Your task to perform on an android device: change timer sound Image 0: 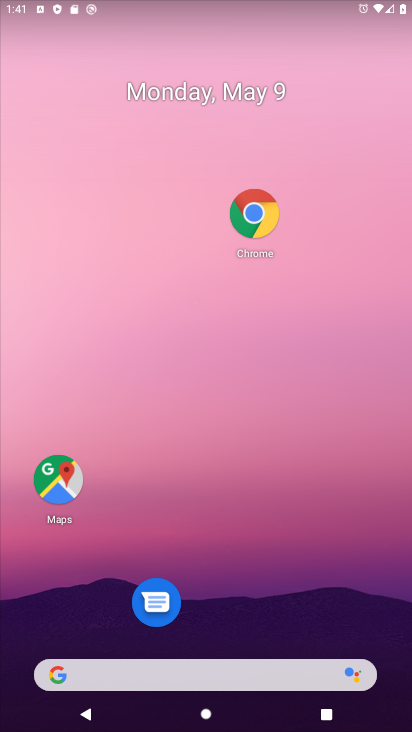
Step 0: drag from (316, 593) to (312, 77)
Your task to perform on an android device: change timer sound Image 1: 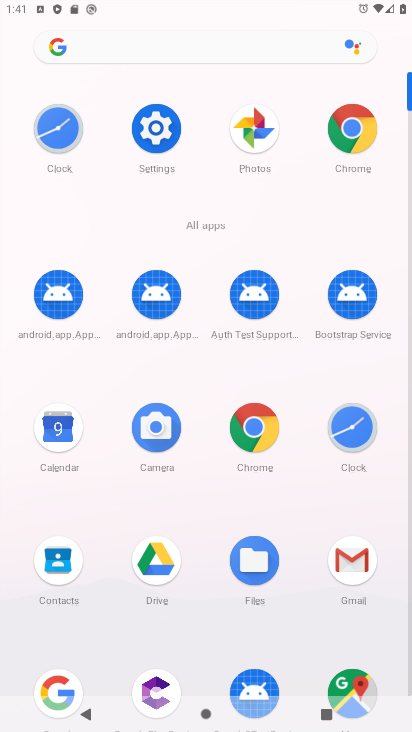
Step 1: click (72, 146)
Your task to perform on an android device: change timer sound Image 2: 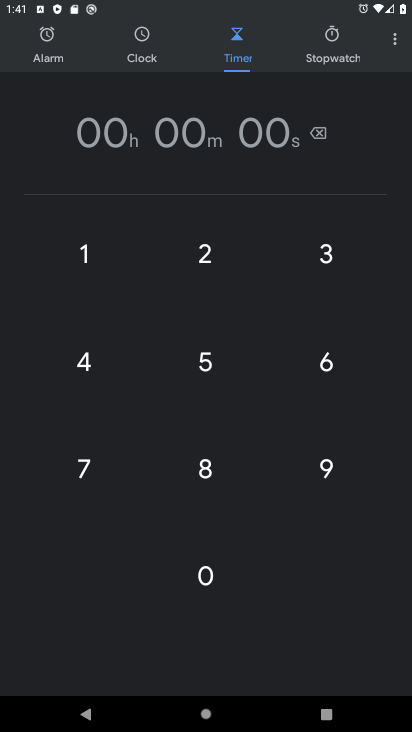
Step 2: click (393, 27)
Your task to perform on an android device: change timer sound Image 3: 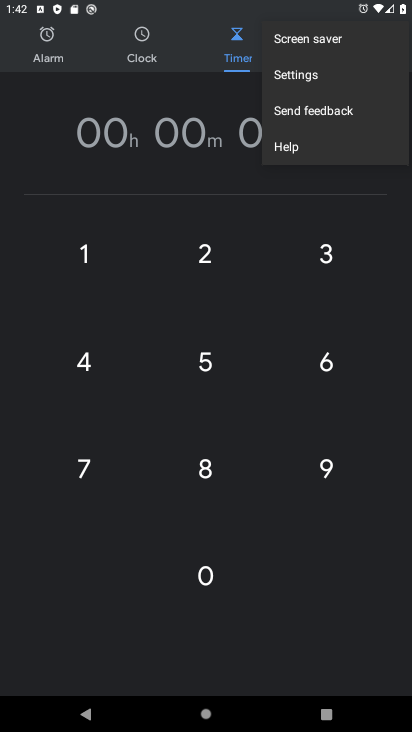
Step 3: click (325, 81)
Your task to perform on an android device: change timer sound Image 4: 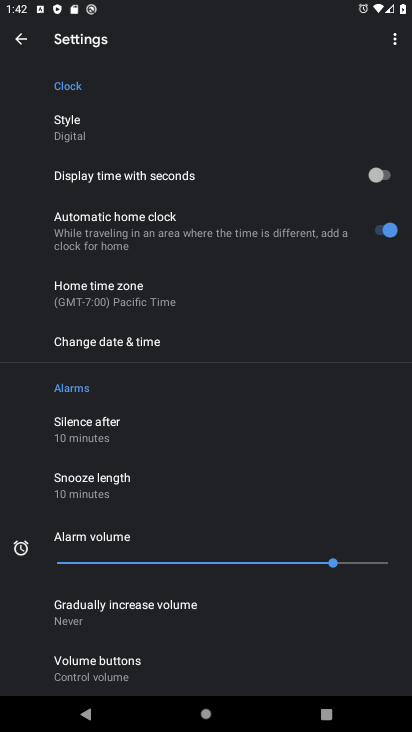
Step 4: drag from (146, 466) to (152, 113)
Your task to perform on an android device: change timer sound Image 5: 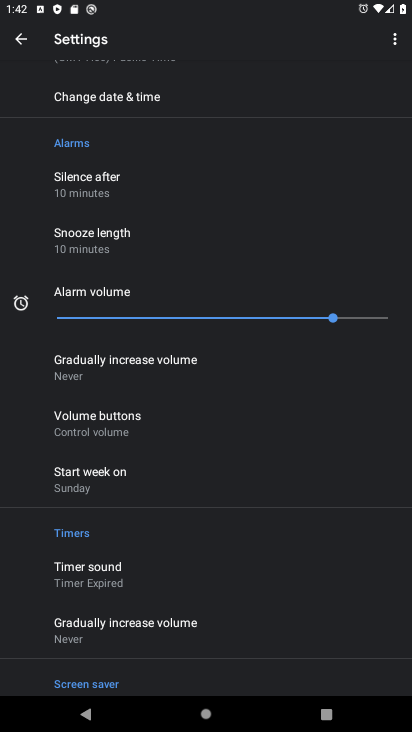
Step 5: click (193, 592)
Your task to perform on an android device: change timer sound Image 6: 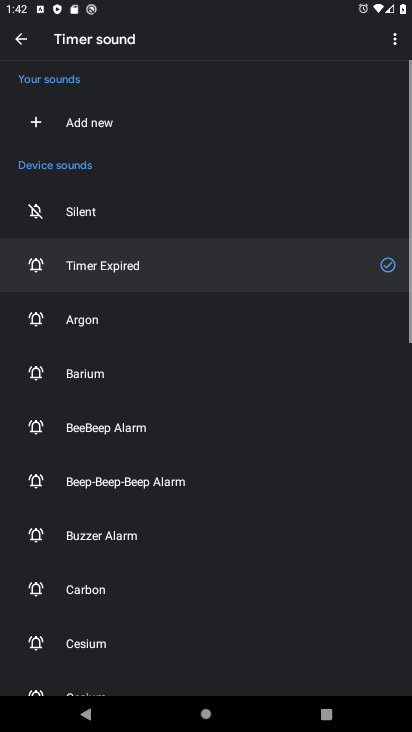
Step 6: click (230, 580)
Your task to perform on an android device: change timer sound Image 7: 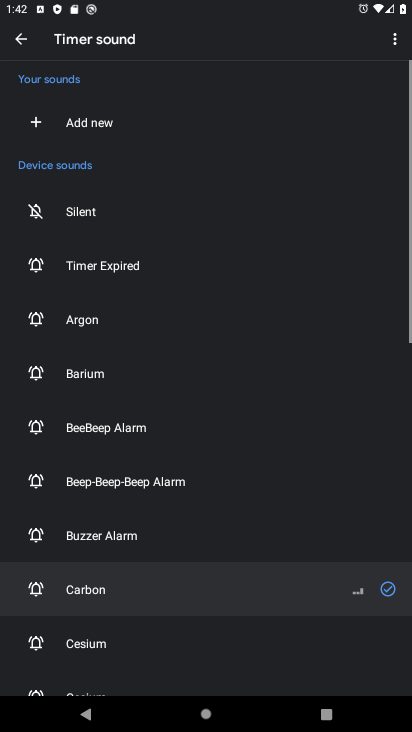
Step 7: task complete